Your task to perform on an android device: toggle javascript in the chrome app Image 0: 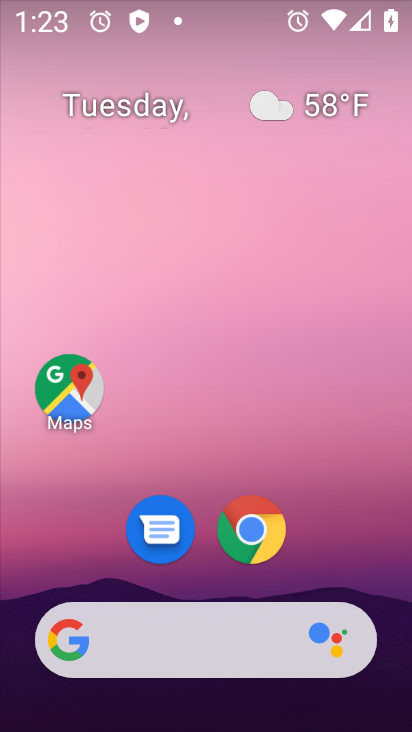
Step 0: click (409, 81)
Your task to perform on an android device: toggle javascript in the chrome app Image 1: 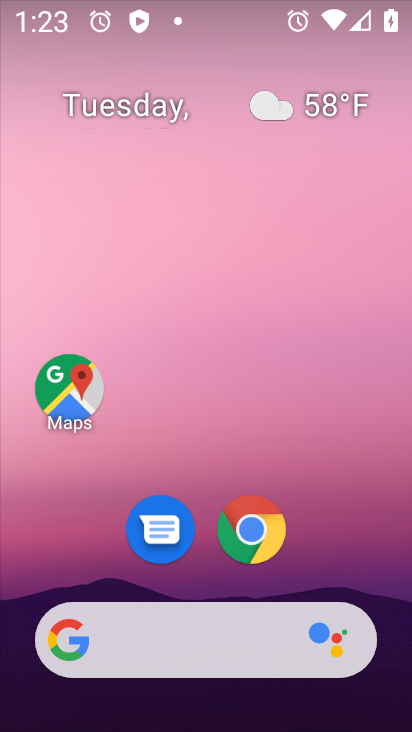
Step 1: click (265, 531)
Your task to perform on an android device: toggle javascript in the chrome app Image 2: 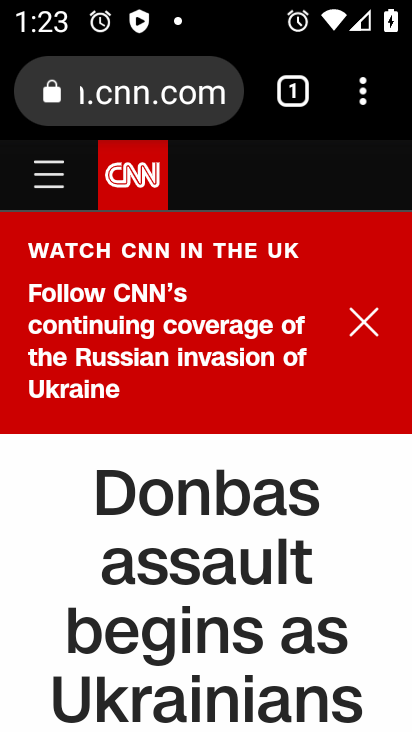
Step 2: click (364, 95)
Your task to perform on an android device: toggle javascript in the chrome app Image 3: 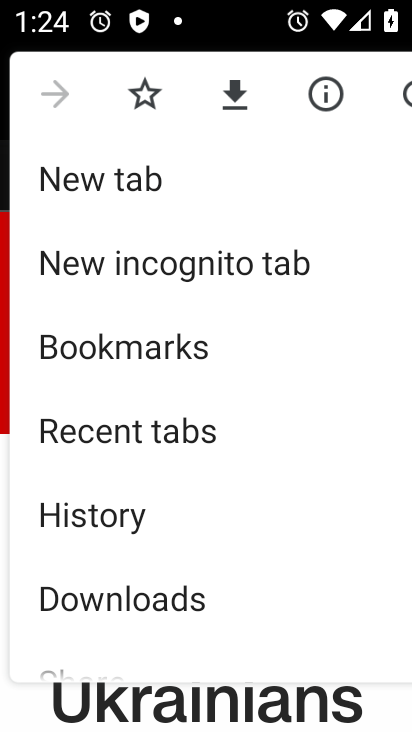
Step 3: drag from (149, 583) to (175, 306)
Your task to perform on an android device: toggle javascript in the chrome app Image 4: 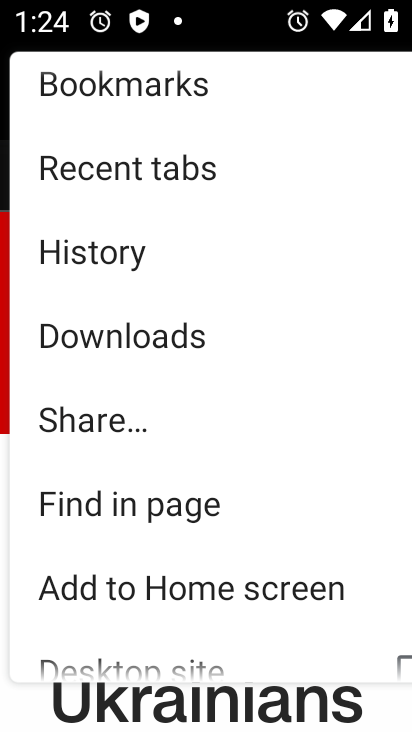
Step 4: drag from (166, 529) to (197, 143)
Your task to perform on an android device: toggle javascript in the chrome app Image 5: 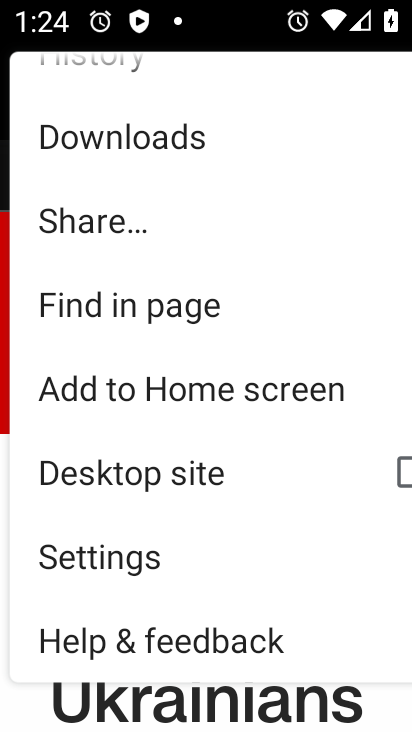
Step 5: click (161, 585)
Your task to perform on an android device: toggle javascript in the chrome app Image 6: 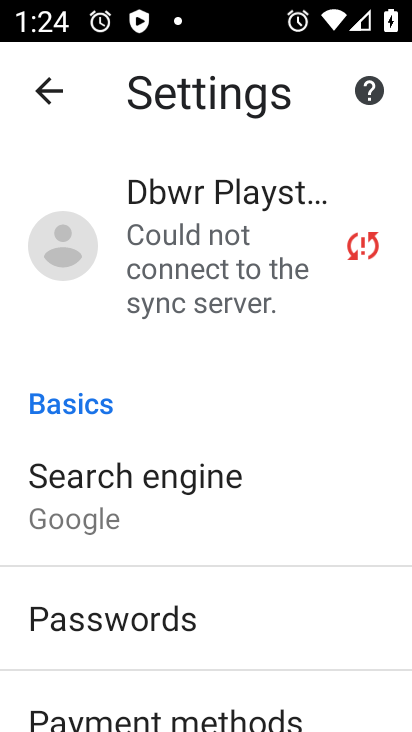
Step 6: drag from (161, 585) to (197, 349)
Your task to perform on an android device: toggle javascript in the chrome app Image 7: 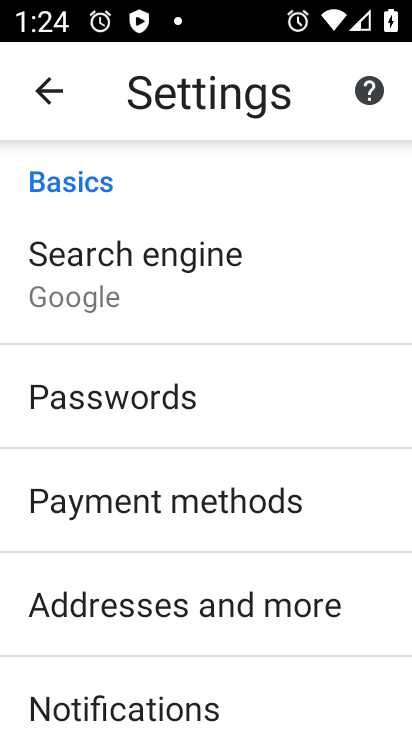
Step 7: drag from (178, 574) to (196, 293)
Your task to perform on an android device: toggle javascript in the chrome app Image 8: 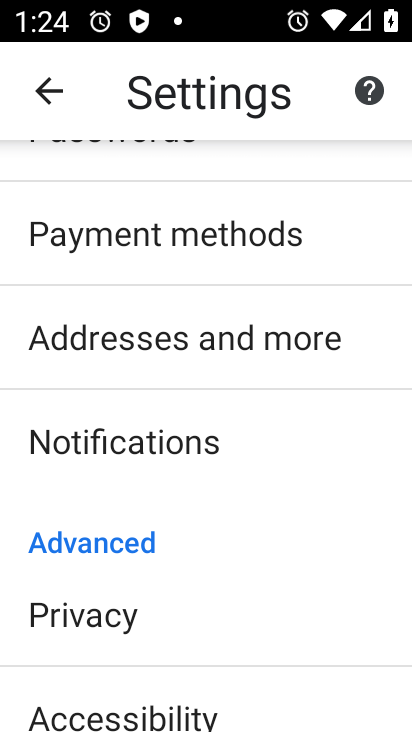
Step 8: drag from (189, 528) to (206, 215)
Your task to perform on an android device: toggle javascript in the chrome app Image 9: 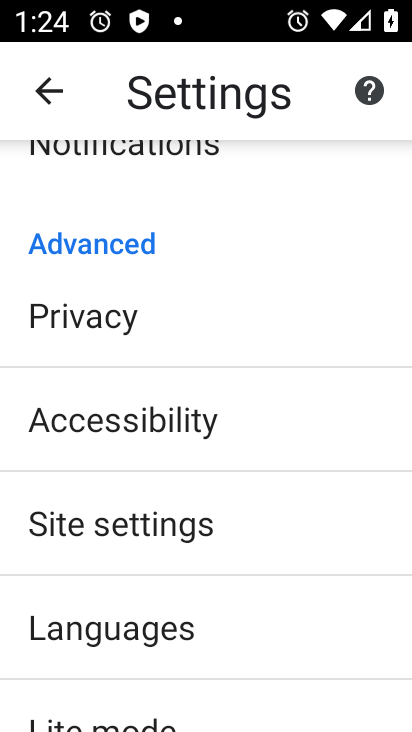
Step 9: click (155, 498)
Your task to perform on an android device: toggle javascript in the chrome app Image 10: 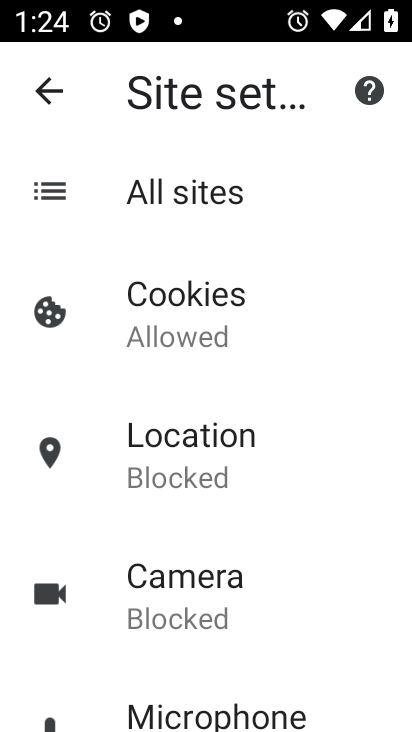
Step 10: drag from (200, 645) to (242, 330)
Your task to perform on an android device: toggle javascript in the chrome app Image 11: 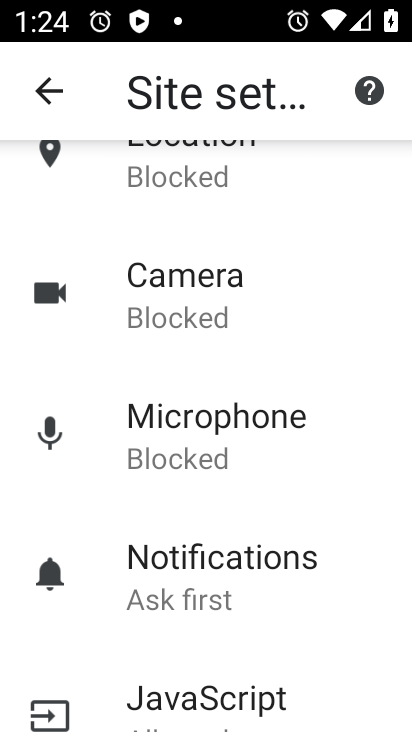
Step 11: drag from (214, 561) to (253, 321)
Your task to perform on an android device: toggle javascript in the chrome app Image 12: 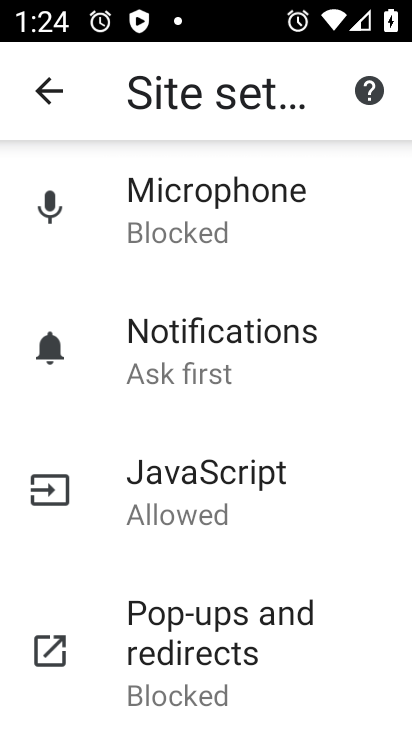
Step 12: click (236, 506)
Your task to perform on an android device: toggle javascript in the chrome app Image 13: 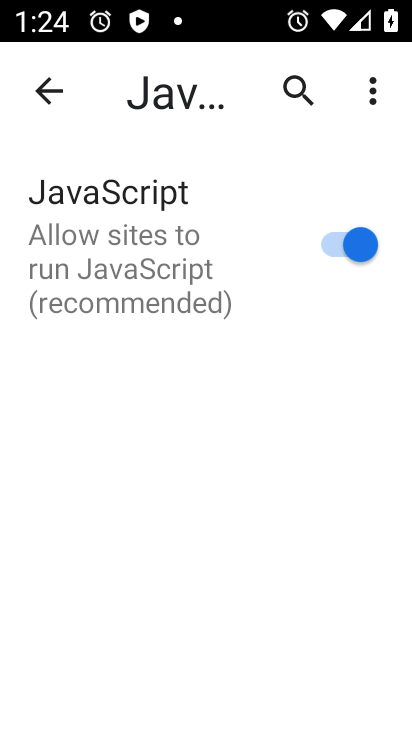
Step 13: click (340, 241)
Your task to perform on an android device: toggle javascript in the chrome app Image 14: 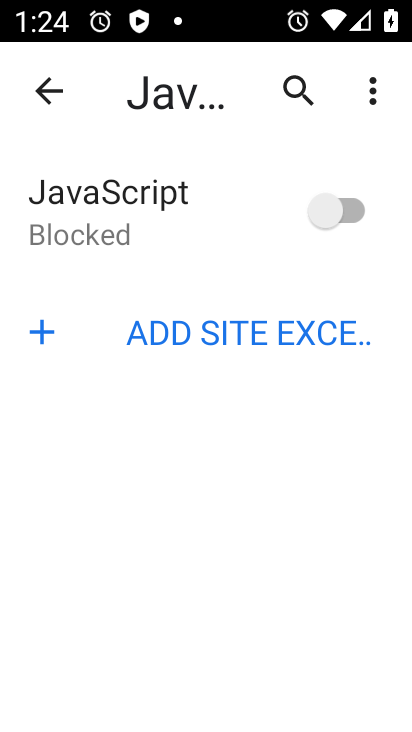
Step 14: task complete